Your task to perform on an android device: Open my contact list Image 0: 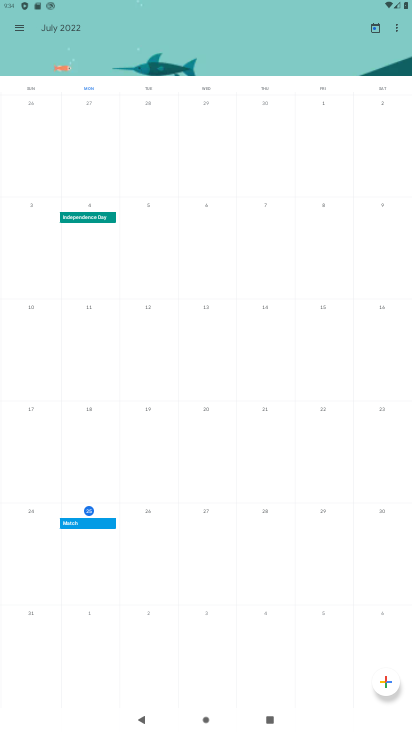
Step 0: press home button
Your task to perform on an android device: Open my contact list Image 1: 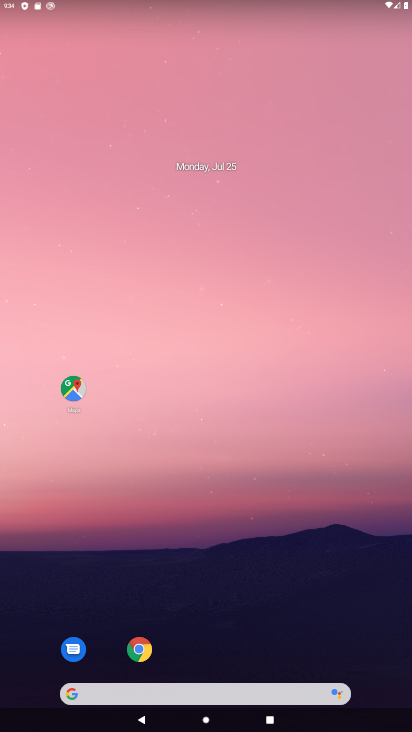
Step 1: drag from (218, 485) to (287, 0)
Your task to perform on an android device: Open my contact list Image 2: 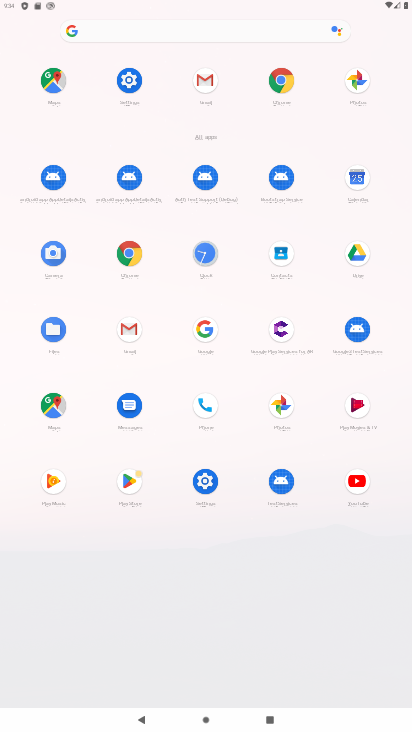
Step 2: click (287, 245)
Your task to perform on an android device: Open my contact list Image 3: 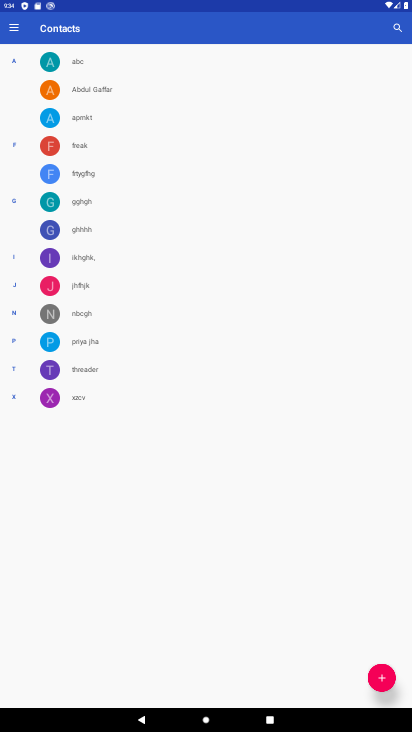
Step 3: task complete